Your task to perform on an android device: set default search engine in the chrome app Image 0: 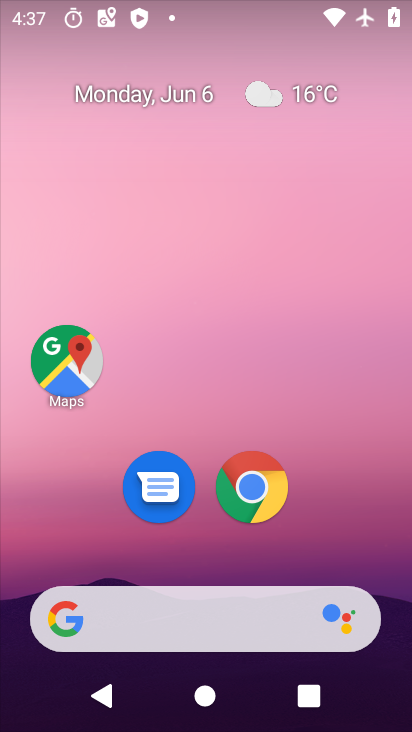
Step 0: click (259, 485)
Your task to perform on an android device: set default search engine in the chrome app Image 1: 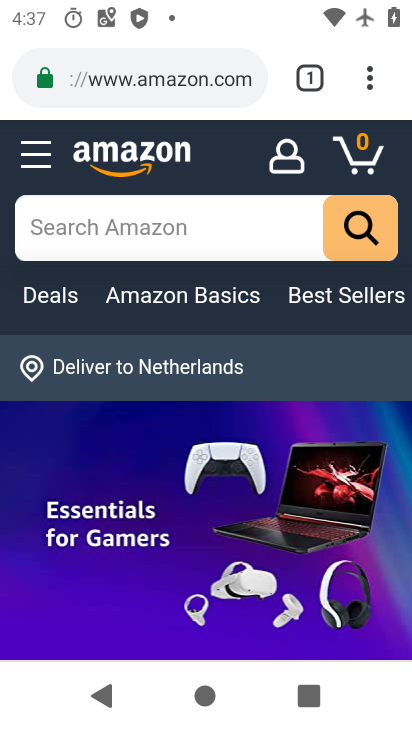
Step 1: drag from (371, 64) to (251, 554)
Your task to perform on an android device: set default search engine in the chrome app Image 2: 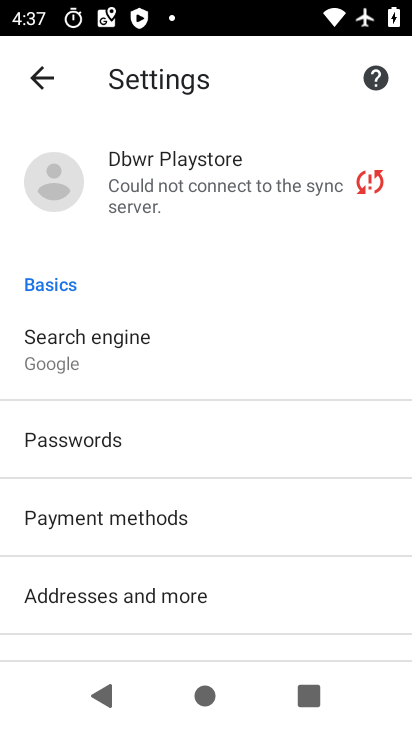
Step 2: click (85, 352)
Your task to perform on an android device: set default search engine in the chrome app Image 3: 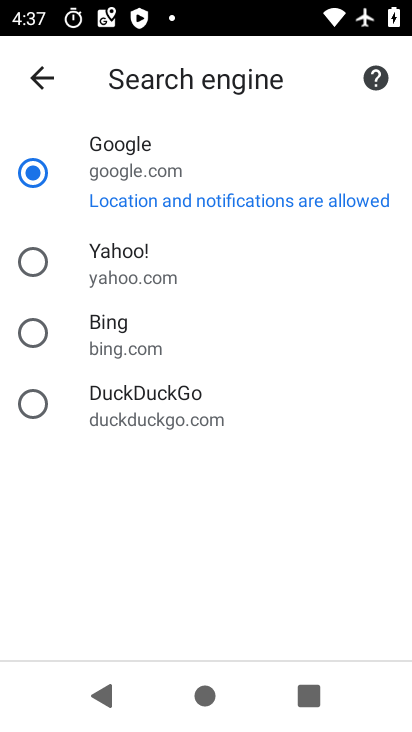
Step 3: task complete